Your task to perform on an android device: delete a single message in the gmail app Image 0: 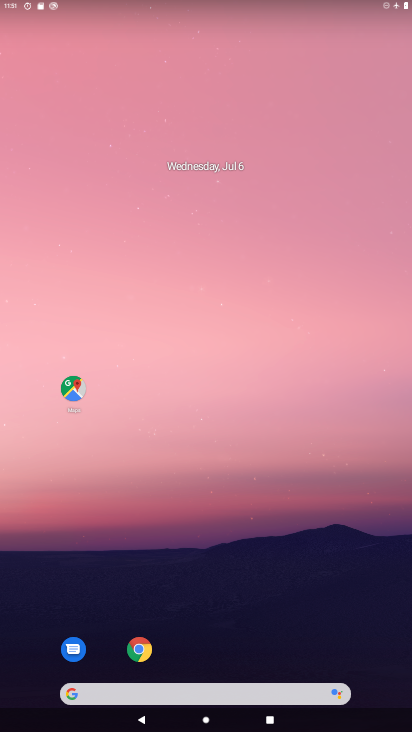
Step 0: click (303, 194)
Your task to perform on an android device: delete a single message in the gmail app Image 1: 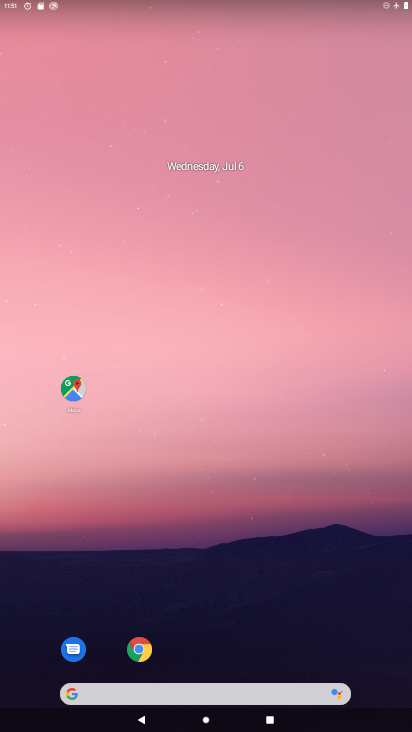
Step 1: drag from (400, 707) to (310, 0)
Your task to perform on an android device: delete a single message in the gmail app Image 2: 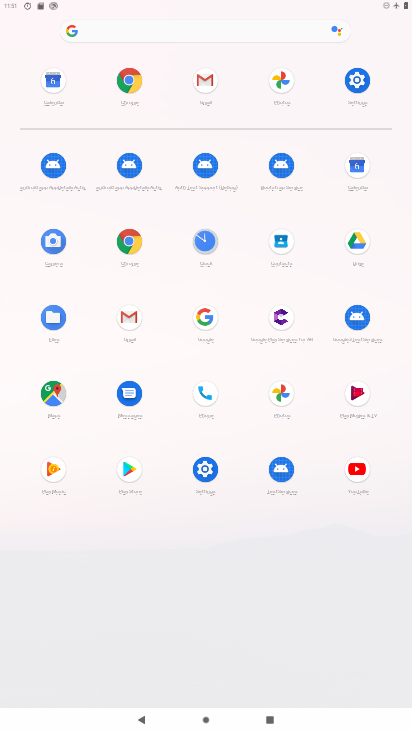
Step 2: click (128, 318)
Your task to perform on an android device: delete a single message in the gmail app Image 3: 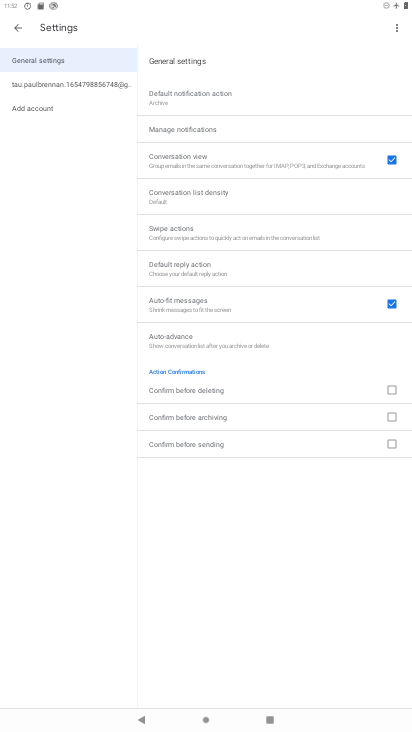
Step 3: press back button
Your task to perform on an android device: delete a single message in the gmail app Image 4: 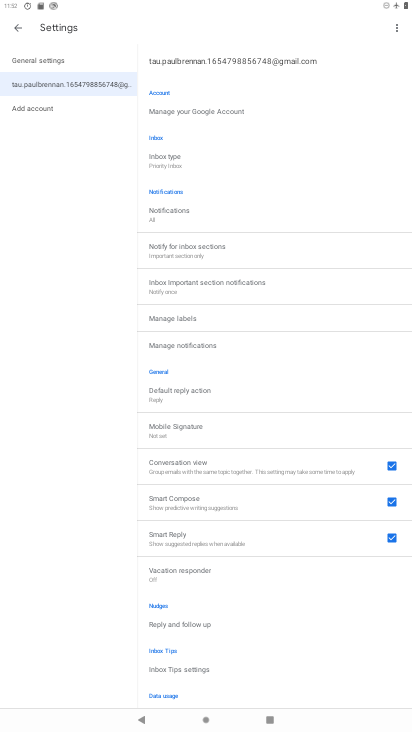
Step 4: press back button
Your task to perform on an android device: delete a single message in the gmail app Image 5: 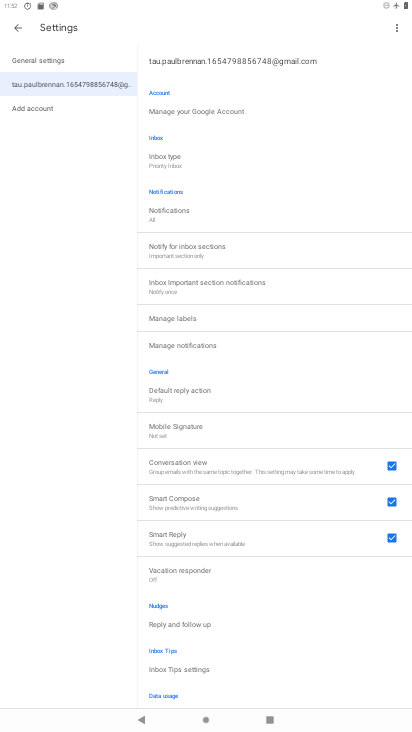
Step 5: press home button
Your task to perform on an android device: delete a single message in the gmail app Image 6: 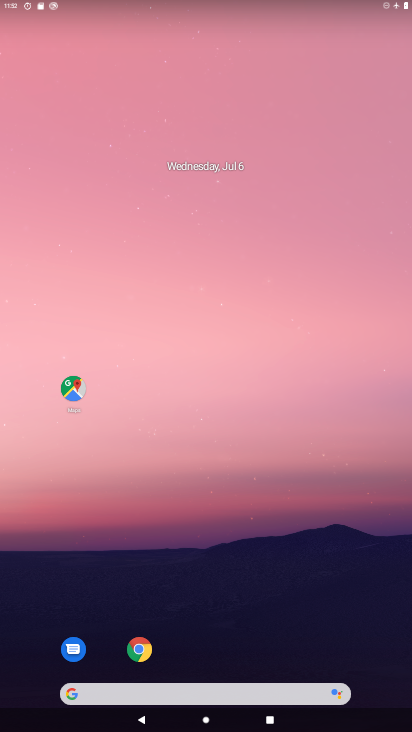
Step 6: drag from (363, 709) to (263, 91)
Your task to perform on an android device: delete a single message in the gmail app Image 7: 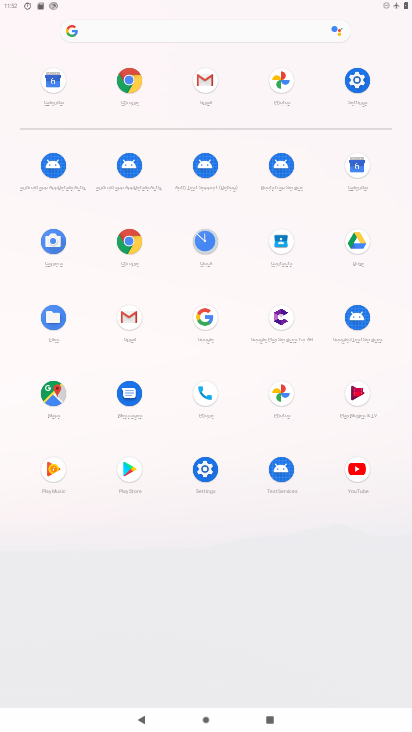
Step 7: click (211, 74)
Your task to perform on an android device: delete a single message in the gmail app Image 8: 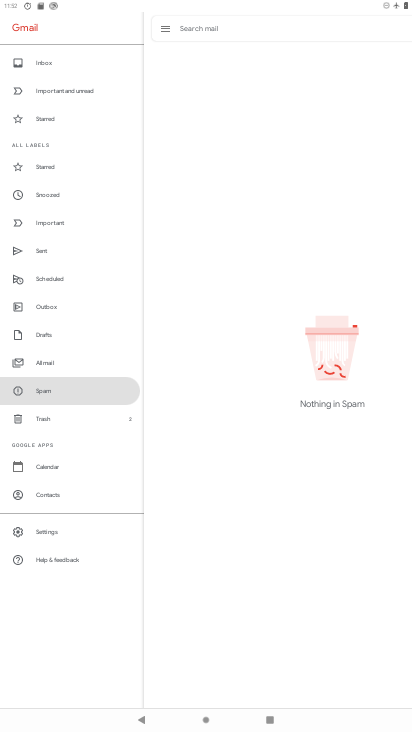
Step 8: click (40, 65)
Your task to perform on an android device: delete a single message in the gmail app Image 9: 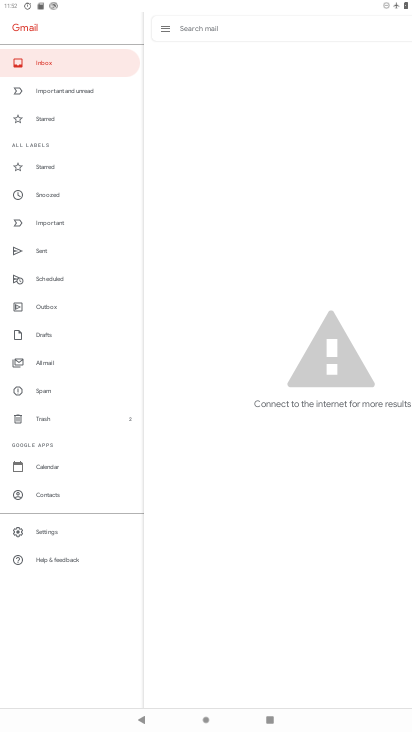
Step 9: task complete